Your task to perform on an android device: toggle improve location accuracy Image 0: 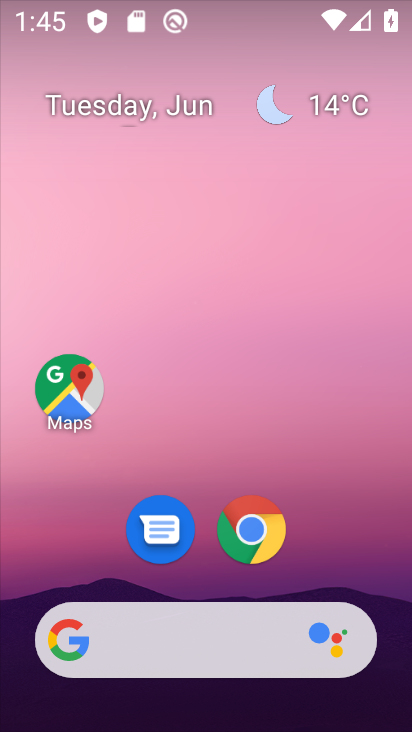
Step 0: drag from (56, 585) to (170, 142)
Your task to perform on an android device: toggle improve location accuracy Image 1: 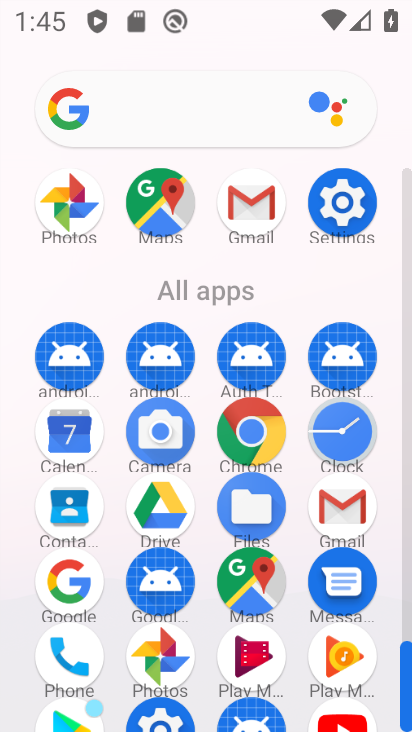
Step 1: drag from (102, 680) to (222, 261)
Your task to perform on an android device: toggle improve location accuracy Image 2: 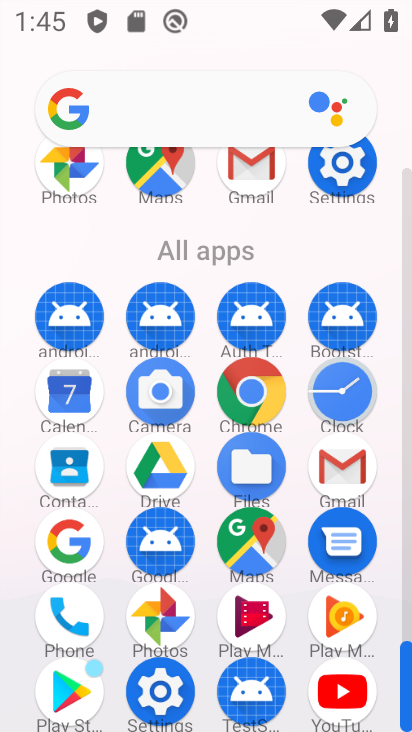
Step 2: click (155, 677)
Your task to perform on an android device: toggle improve location accuracy Image 3: 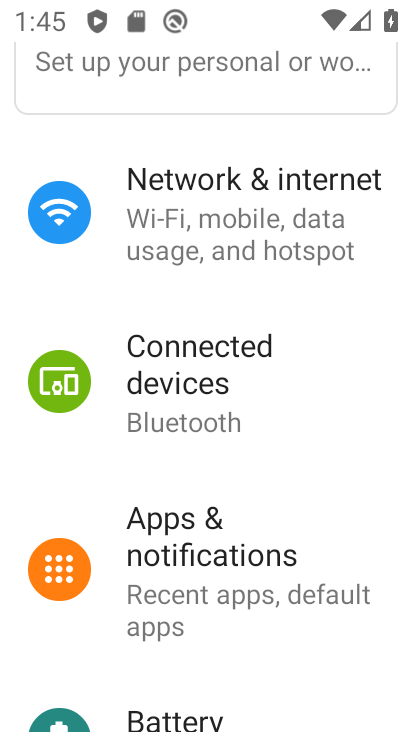
Step 3: drag from (174, 597) to (320, 163)
Your task to perform on an android device: toggle improve location accuracy Image 4: 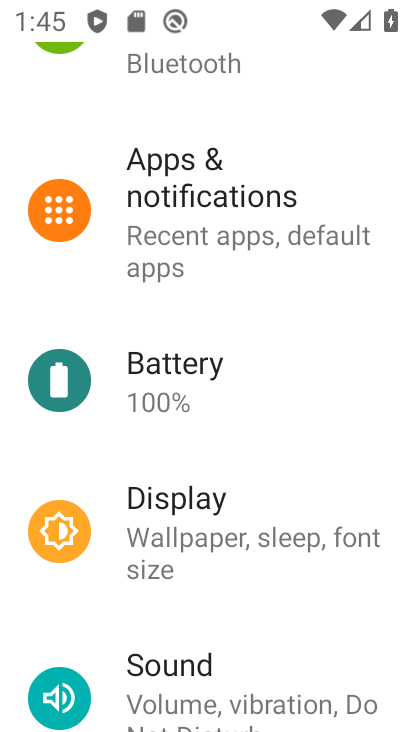
Step 4: drag from (218, 646) to (321, 194)
Your task to perform on an android device: toggle improve location accuracy Image 5: 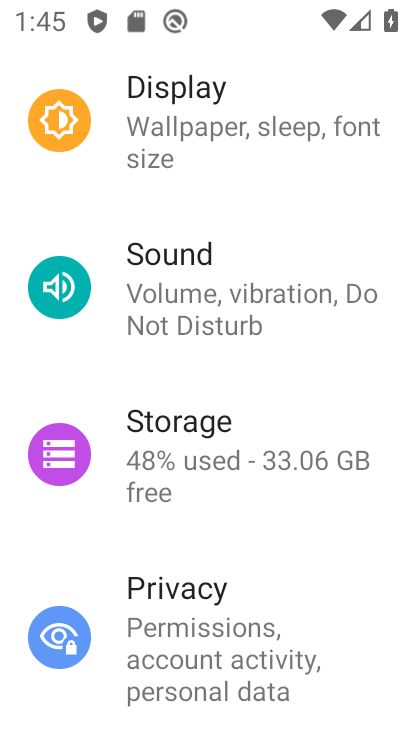
Step 5: drag from (263, 670) to (339, 251)
Your task to perform on an android device: toggle improve location accuracy Image 6: 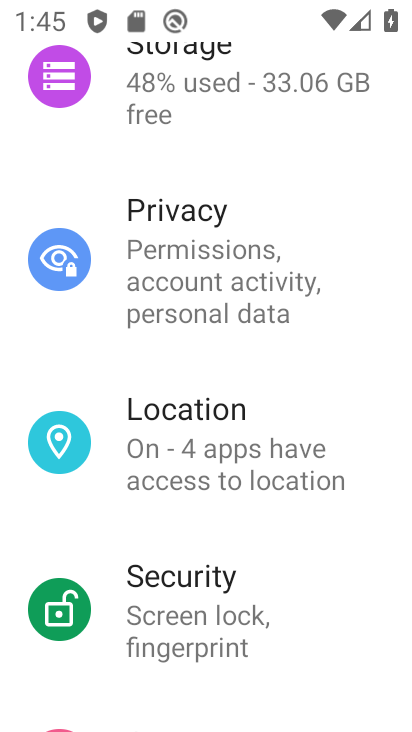
Step 6: click (257, 446)
Your task to perform on an android device: toggle improve location accuracy Image 7: 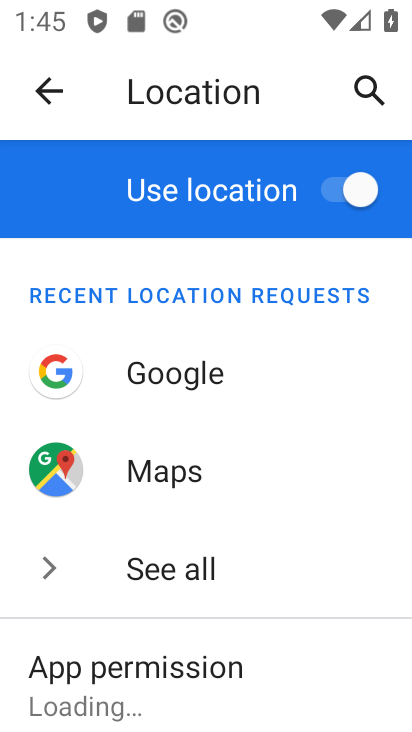
Step 7: drag from (211, 602) to (363, 215)
Your task to perform on an android device: toggle improve location accuracy Image 8: 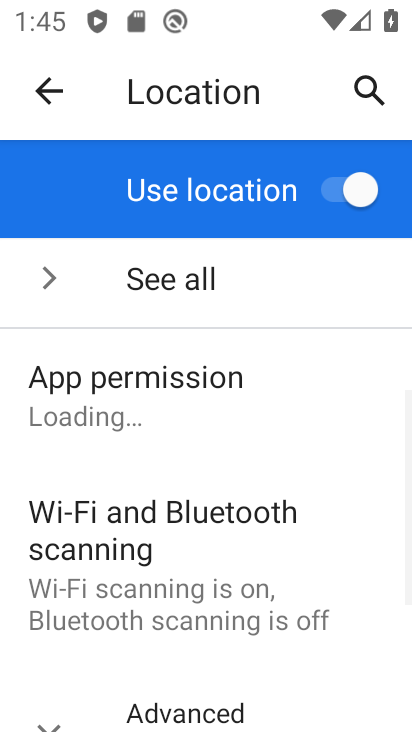
Step 8: drag from (223, 635) to (292, 390)
Your task to perform on an android device: toggle improve location accuracy Image 9: 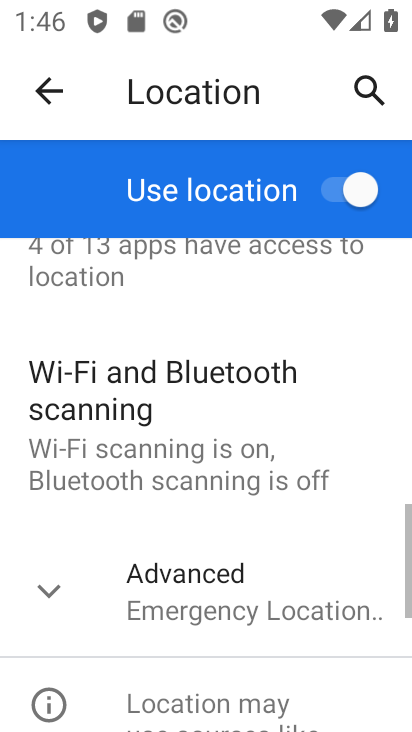
Step 9: click (244, 571)
Your task to perform on an android device: toggle improve location accuracy Image 10: 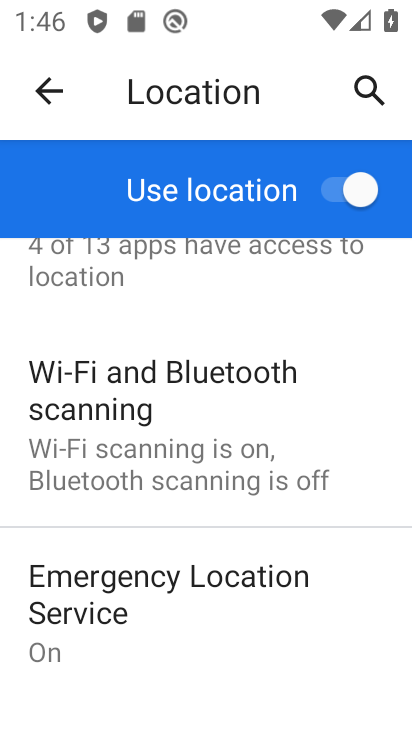
Step 10: drag from (315, 512) to (385, 151)
Your task to perform on an android device: toggle improve location accuracy Image 11: 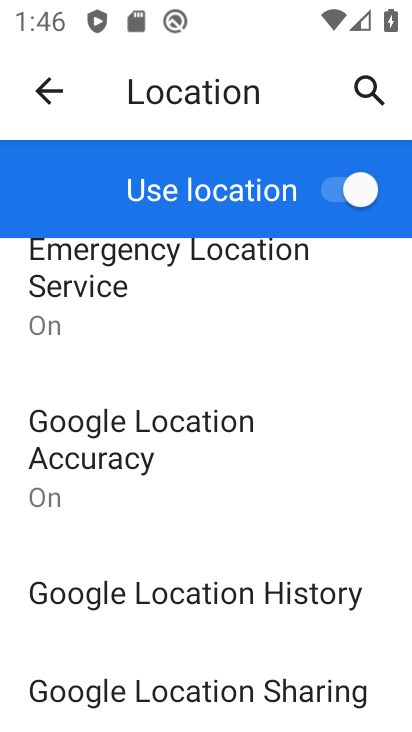
Step 11: click (225, 468)
Your task to perform on an android device: toggle improve location accuracy Image 12: 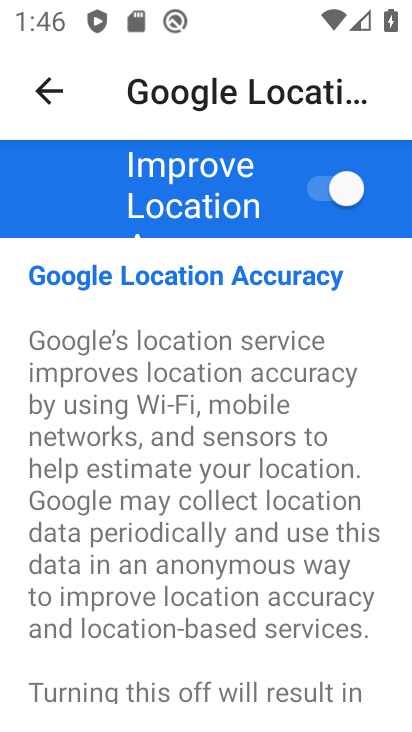
Step 12: click (323, 191)
Your task to perform on an android device: toggle improve location accuracy Image 13: 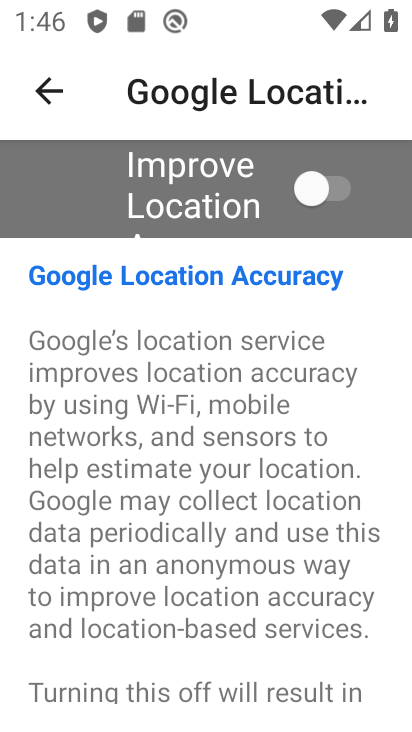
Step 13: task complete